Your task to perform on an android device: turn off smart reply in the gmail app Image 0: 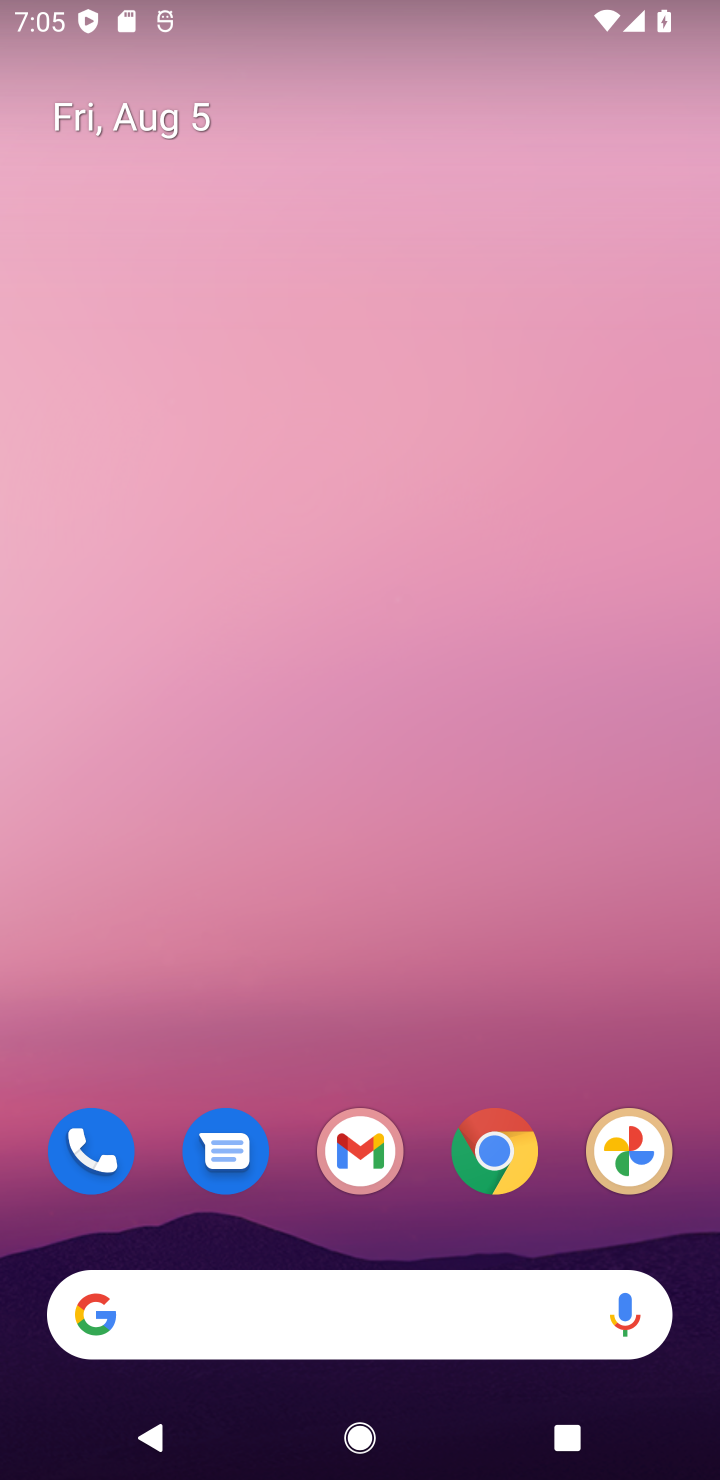
Step 0: drag from (334, 1265) to (527, 49)
Your task to perform on an android device: turn off smart reply in the gmail app Image 1: 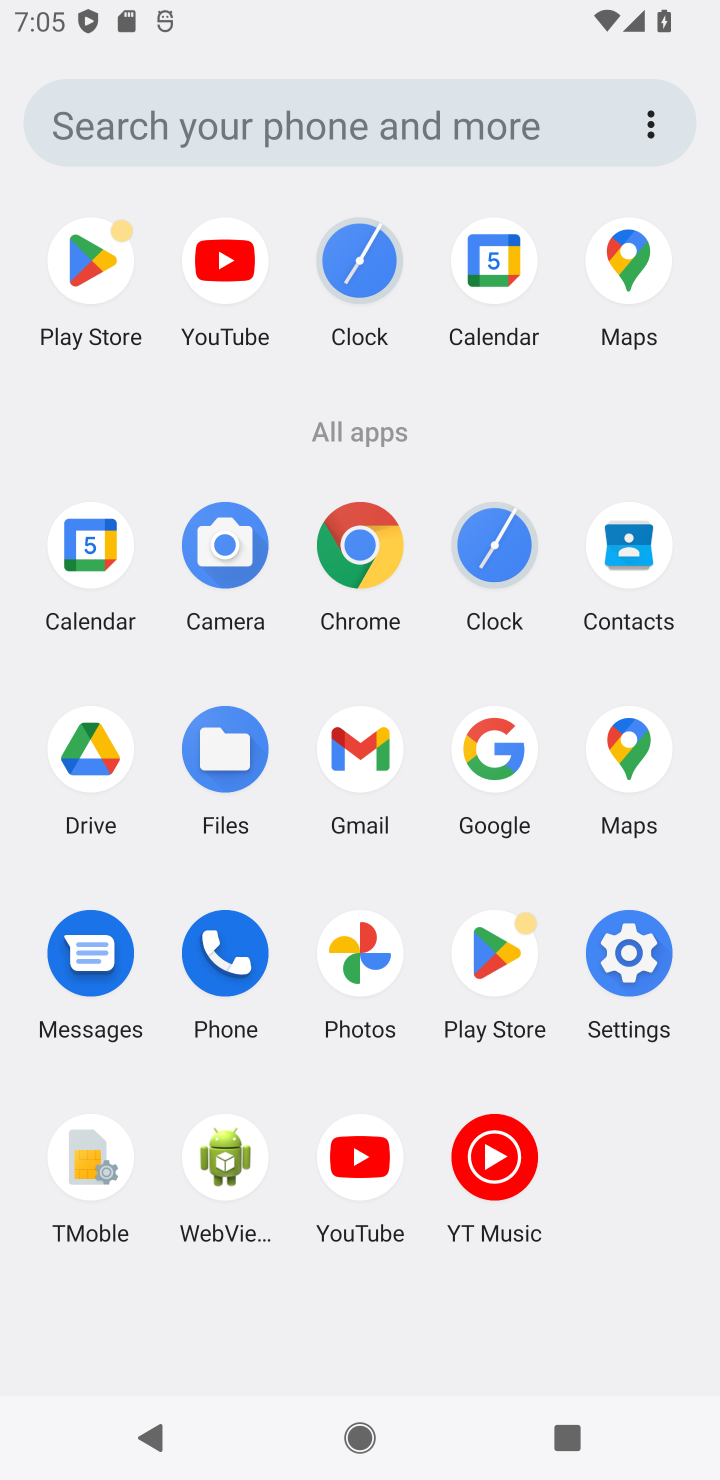
Step 1: click (363, 779)
Your task to perform on an android device: turn off smart reply in the gmail app Image 2: 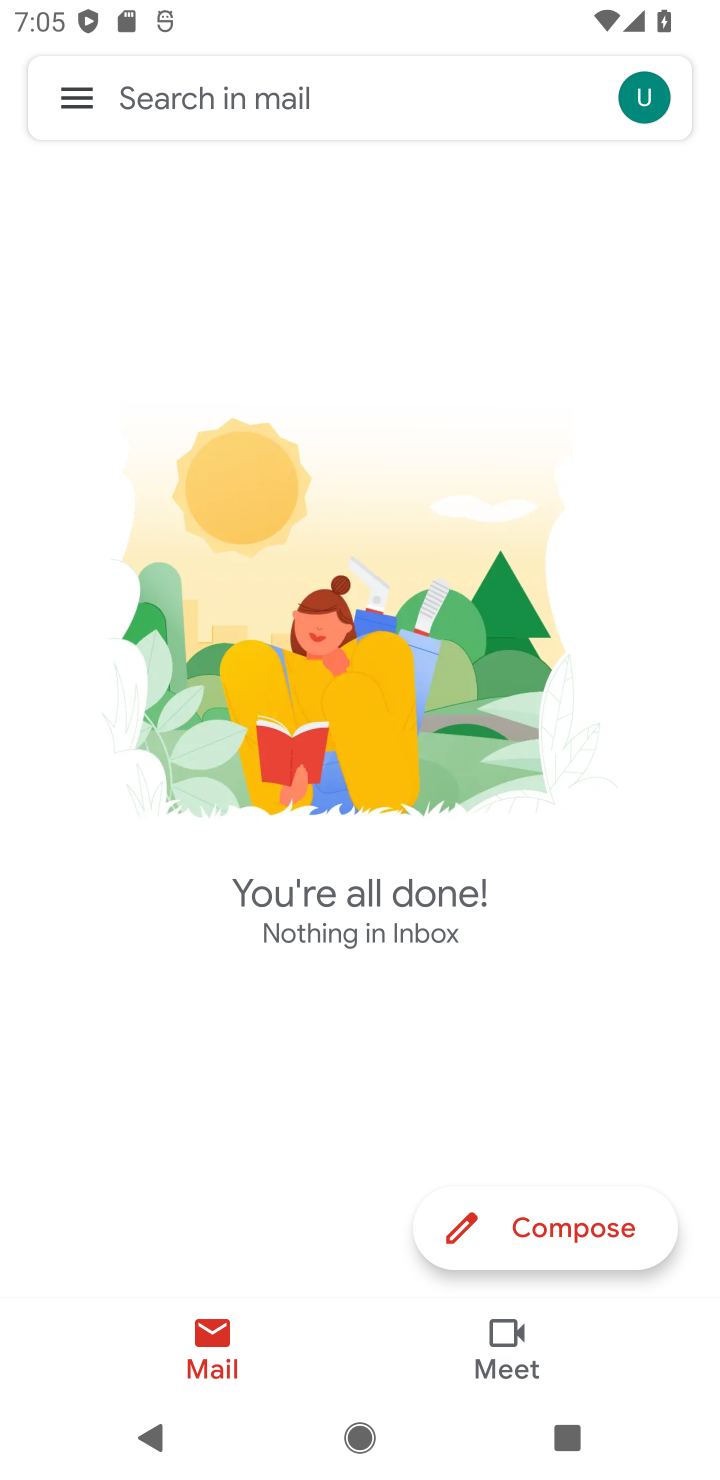
Step 2: click (57, 72)
Your task to perform on an android device: turn off smart reply in the gmail app Image 3: 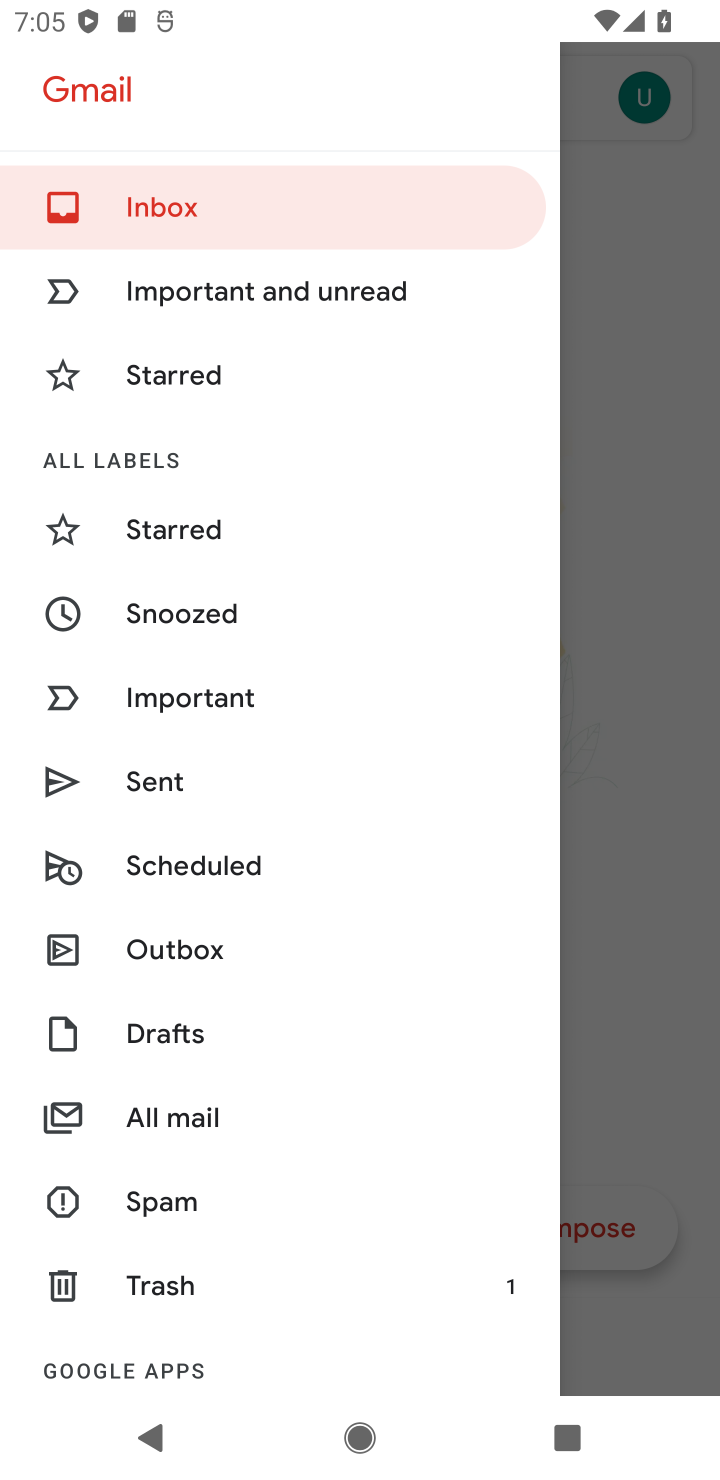
Step 3: drag from (194, 1075) to (223, 184)
Your task to perform on an android device: turn off smart reply in the gmail app Image 4: 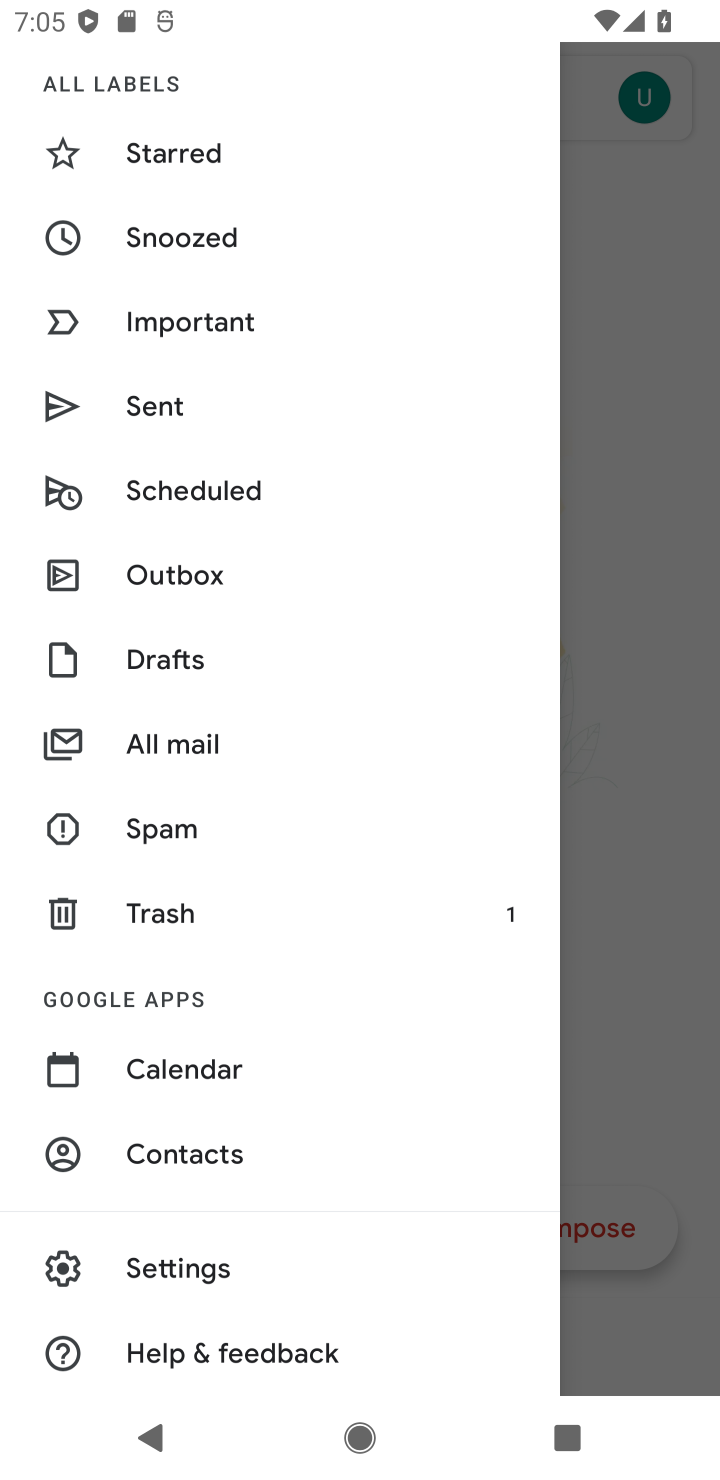
Step 4: drag from (182, 1231) to (165, 503)
Your task to perform on an android device: turn off smart reply in the gmail app Image 5: 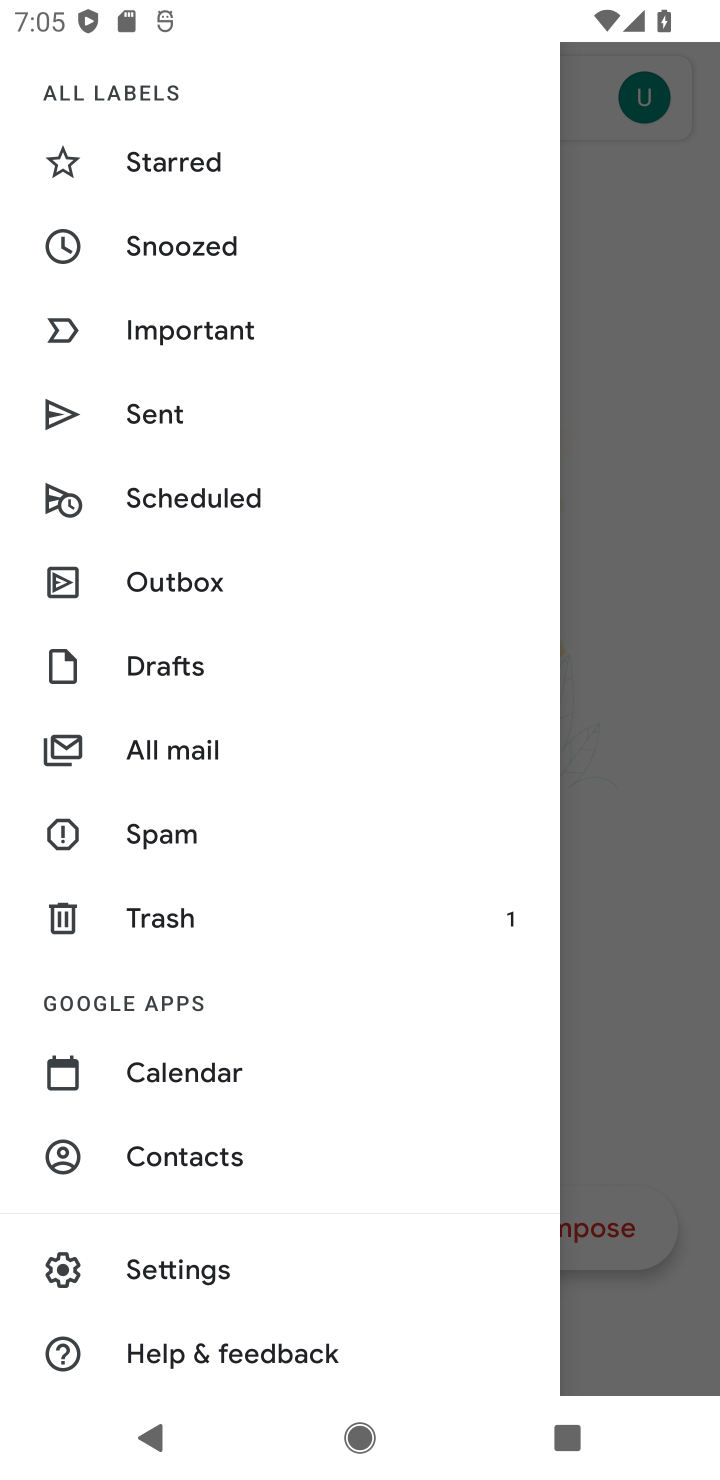
Step 5: click (168, 1283)
Your task to perform on an android device: turn off smart reply in the gmail app Image 6: 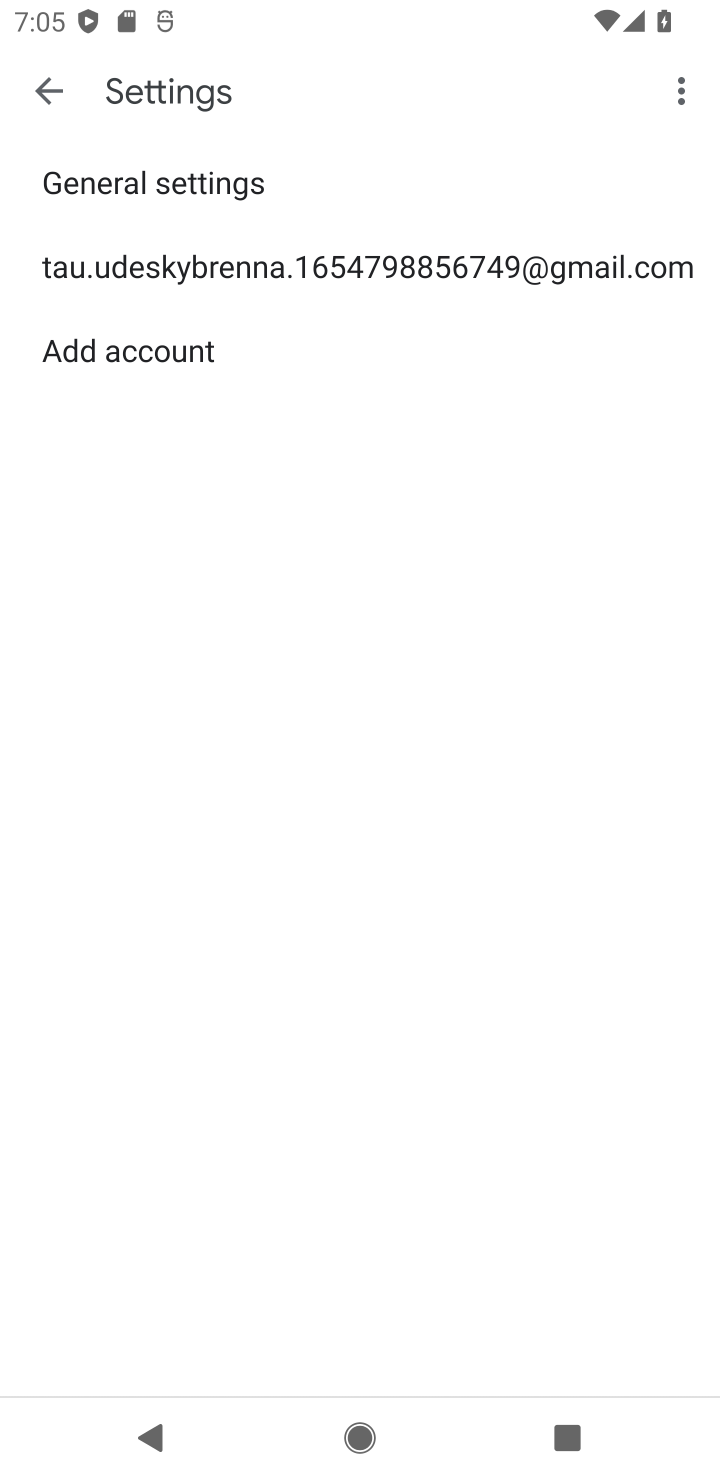
Step 6: click (205, 265)
Your task to perform on an android device: turn off smart reply in the gmail app Image 7: 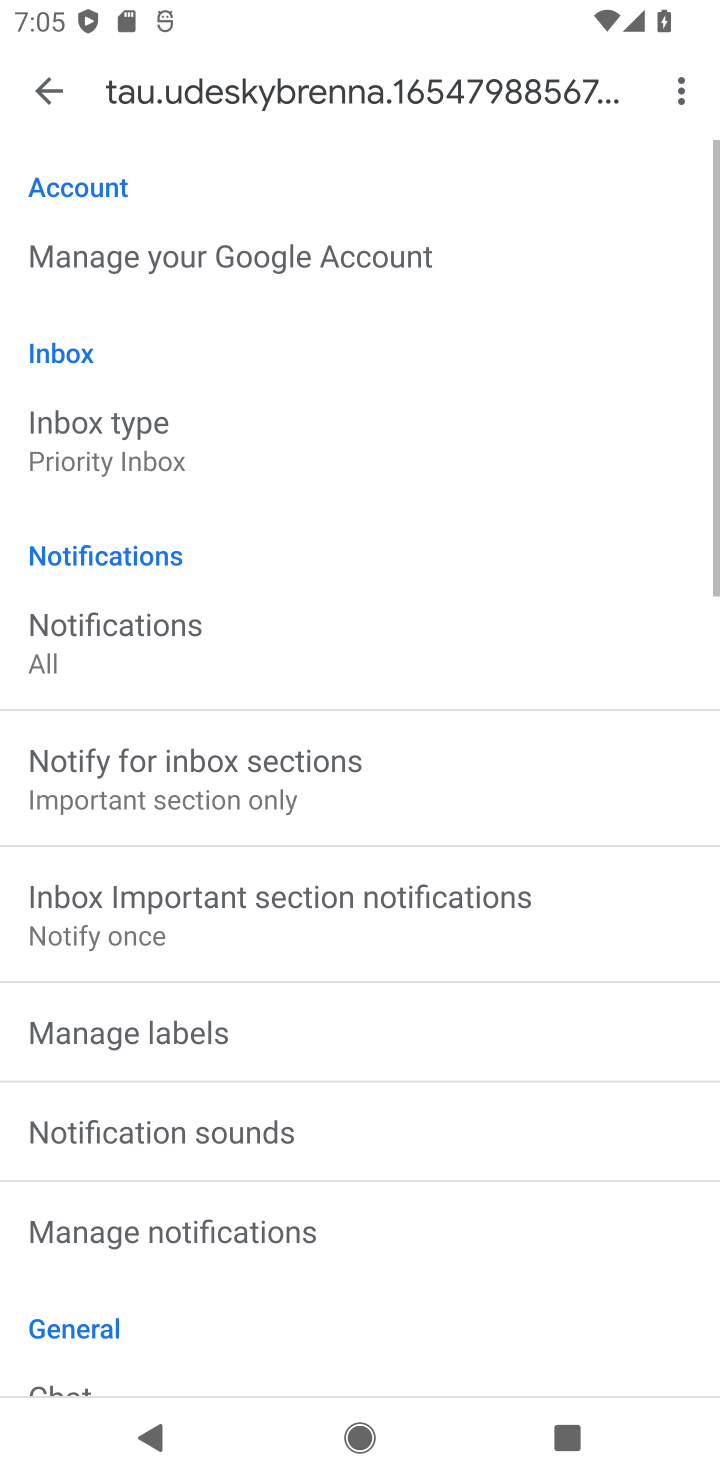
Step 7: drag from (165, 1182) to (102, 135)
Your task to perform on an android device: turn off smart reply in the gmail app Image 8: 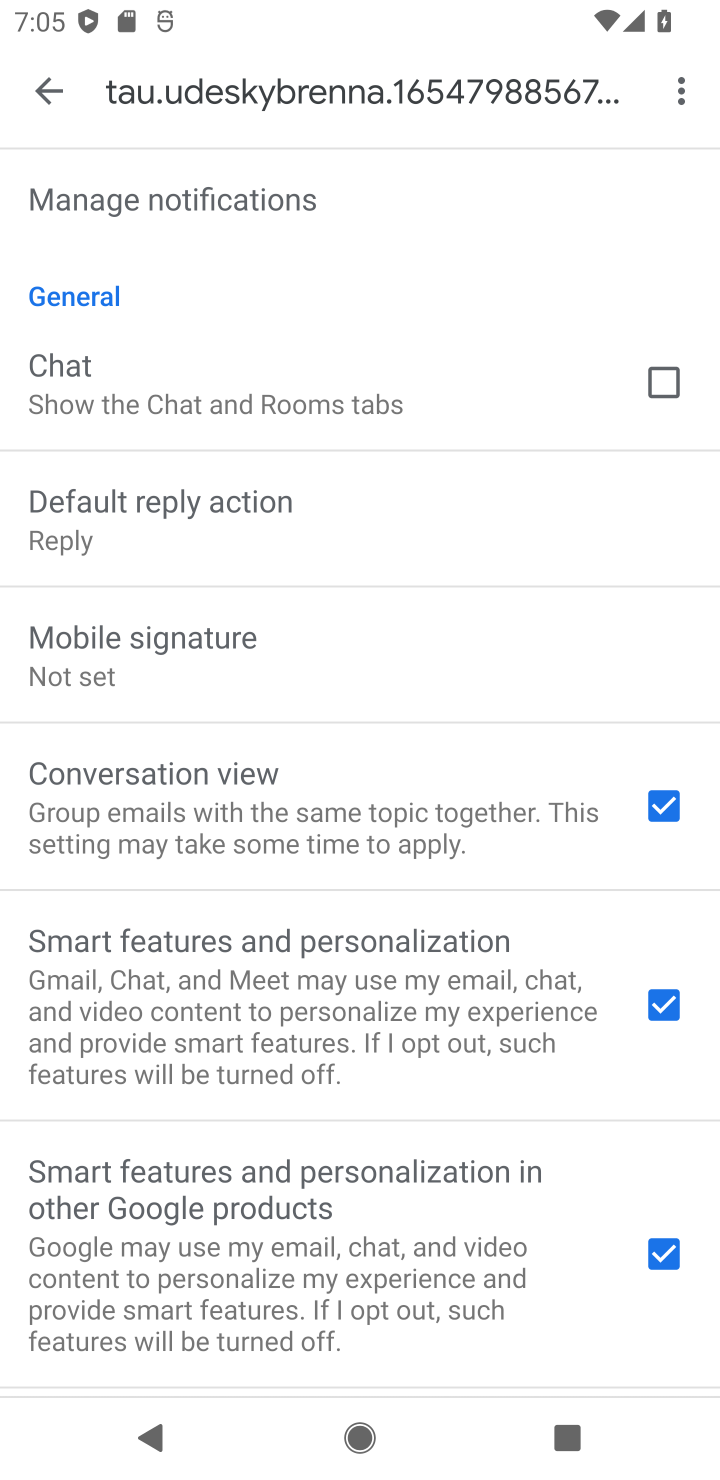
Step 8: drag from (496, 1037) to (440, 112)
Your task to perform on an android device: turn off smart reply in the gmail app Image 9: 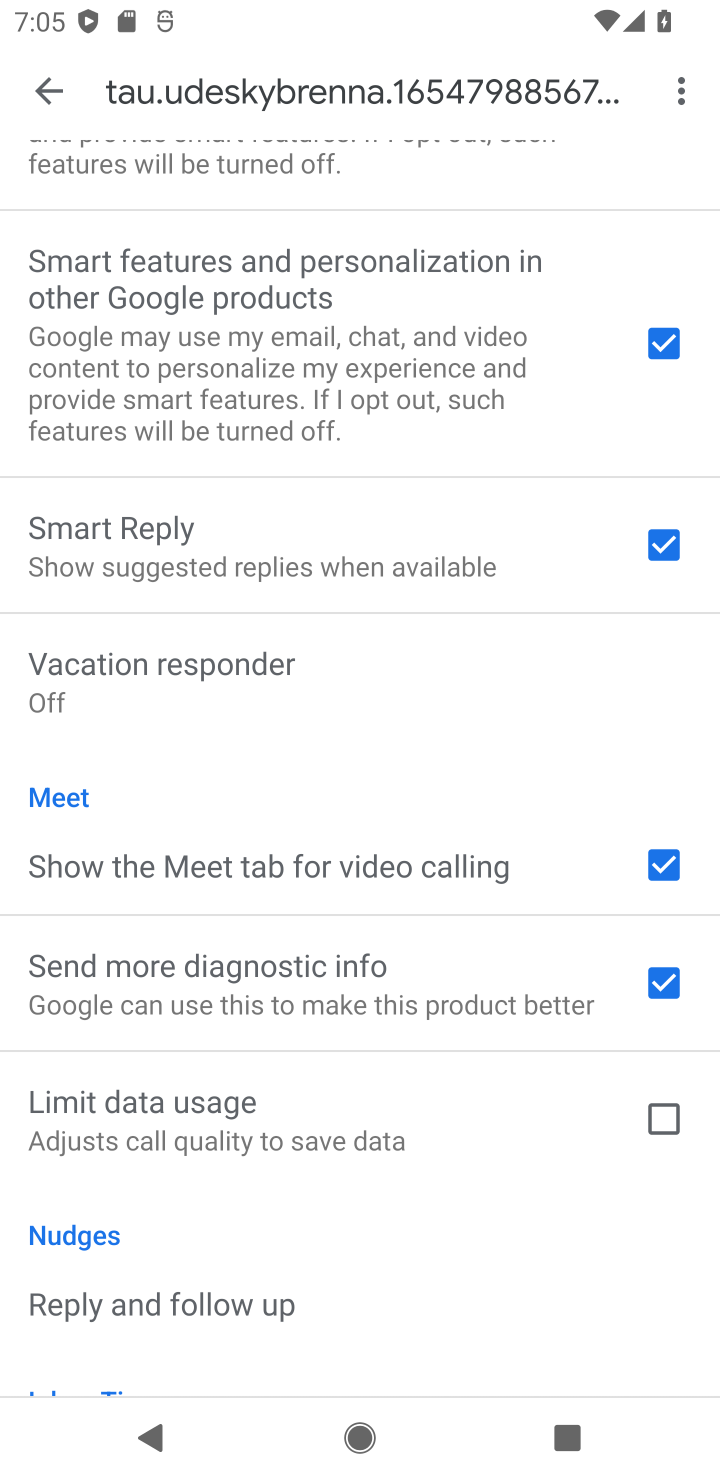
Step 9: click (652, 577)
Your task to perform on an android device: turn off smart reply in the gmail app Image 10: 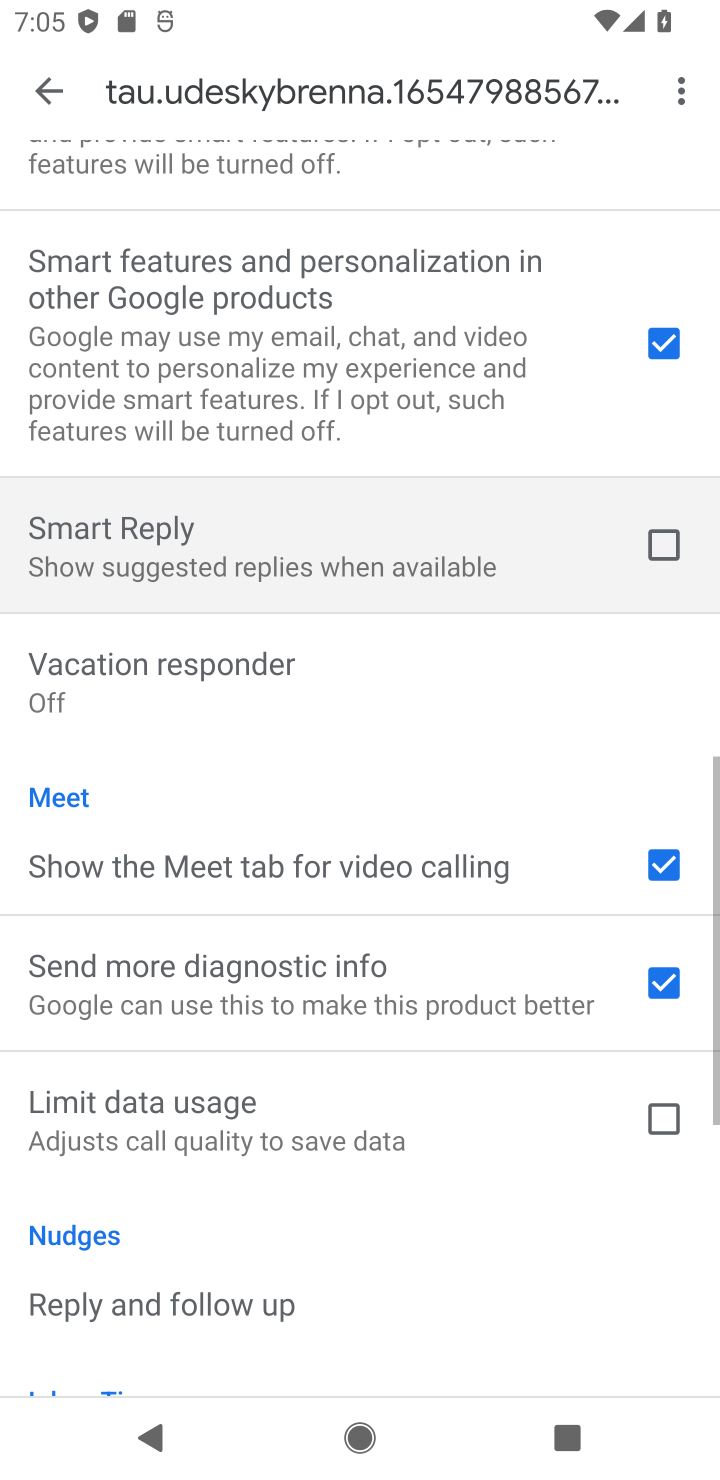
Step 10: task complete